Your task to perform on an android device: all mails in gmail Image 0: 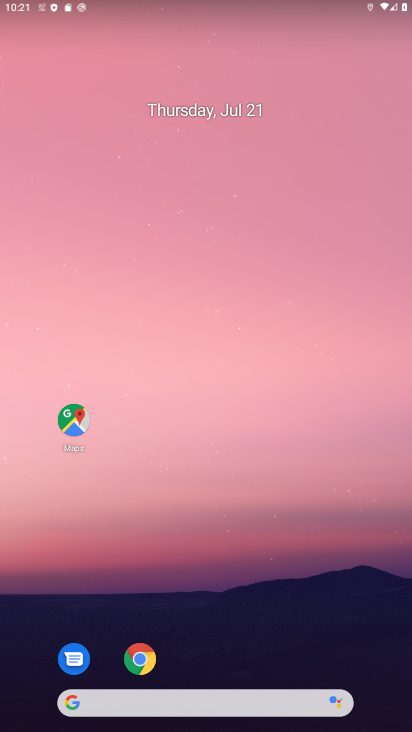
Step 0: drag from (207, 675) to (234, 35)
Your task to perform on an android device: all mails in gmail Image 1: 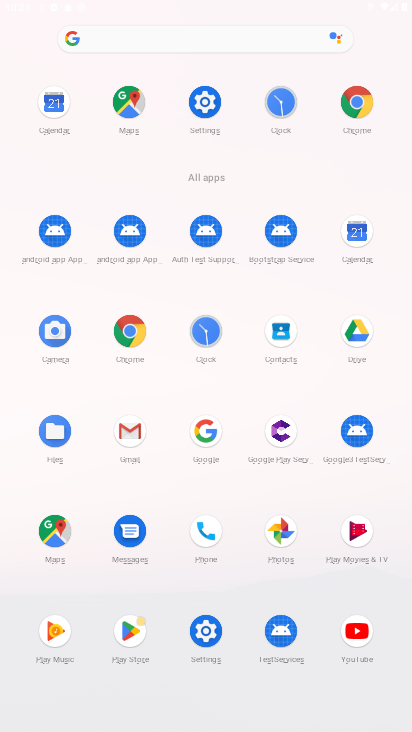
Step 1: click (127, 445)
Your task to perform on an android device: all mails in gmail Image 2: 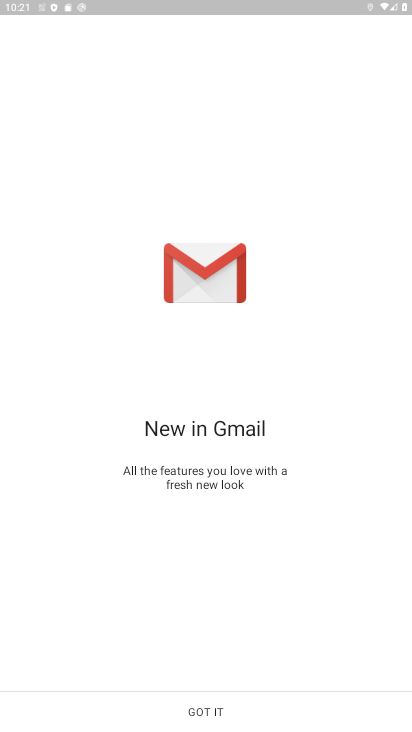
Step 2: click (163, 708)
Your task to perform on an android device: all mails in gmail Image 3: 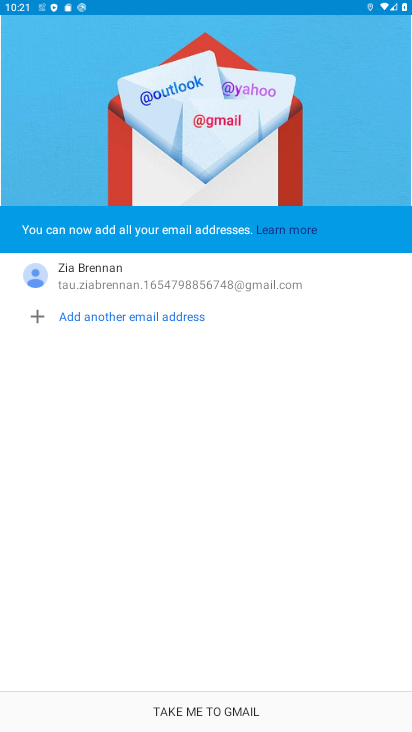
Step 3: click (240, 698)
Your task to perform on an android device: all mails in gmail Image 4: 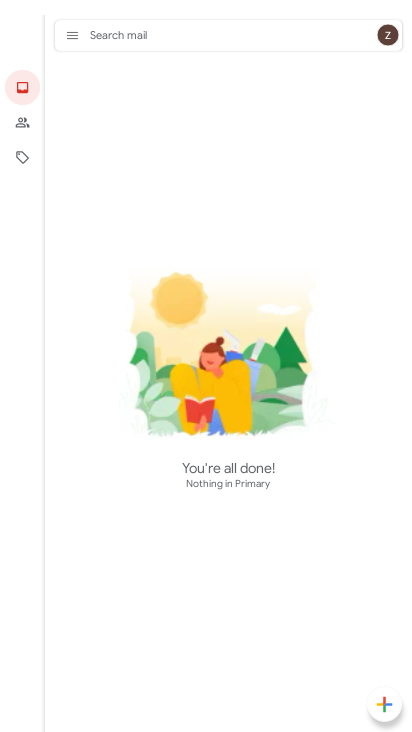
Step 4: click (66, 34)
Your task to perform on an android device: all mails in gmail Image 5: 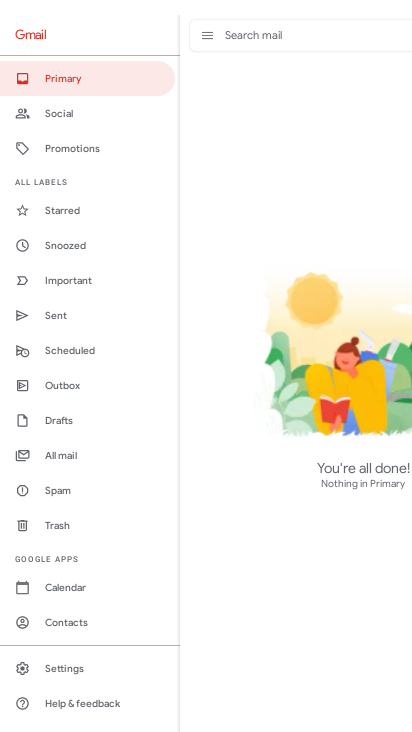
Step 5: click (49, 452)
Your task to perform on an android device: all mails in gmail Image 6: 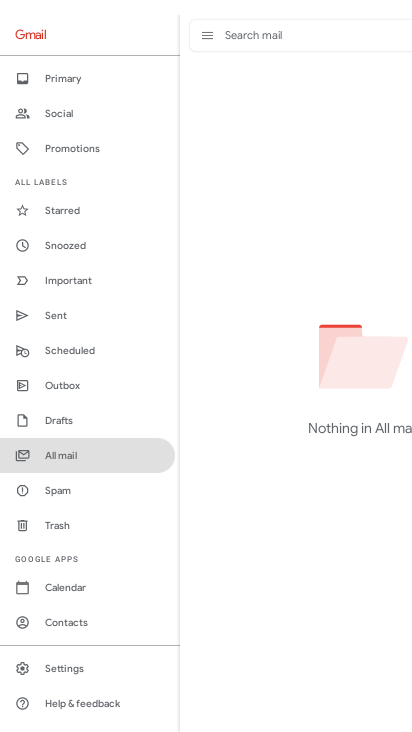
Step 6: task complete